Your task to perform on an android device: snooze an email in the gmail app Image 0: 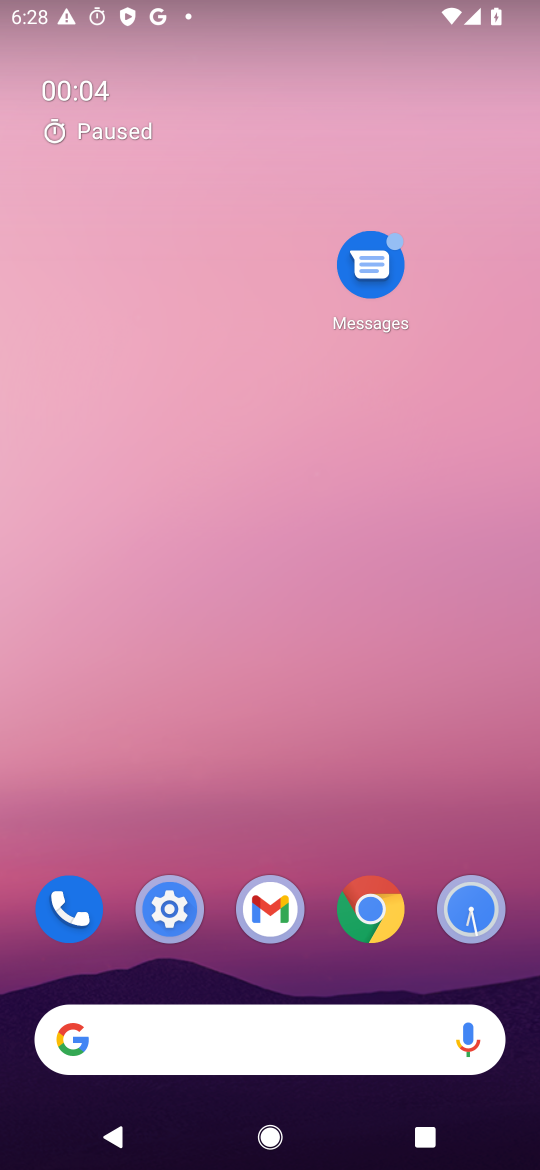
Step 0: click (271, 904)
Your task to perform on an android device: snooze an email in the gmail app Image 1: 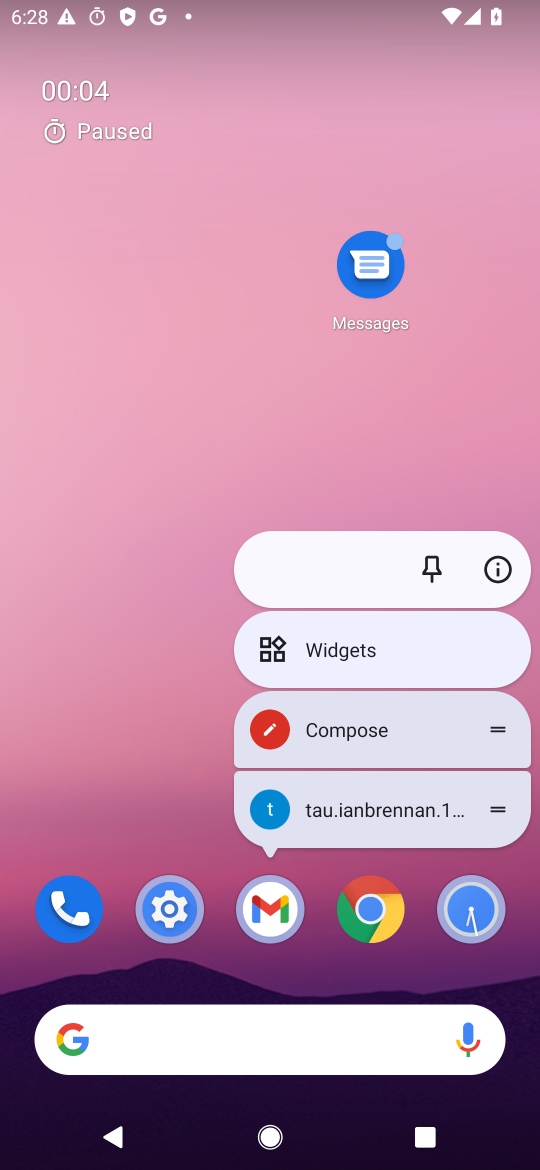
Step 1: click (271, 904)
Your task to perform on an android device: snooze an email in the gmail app Image 2: 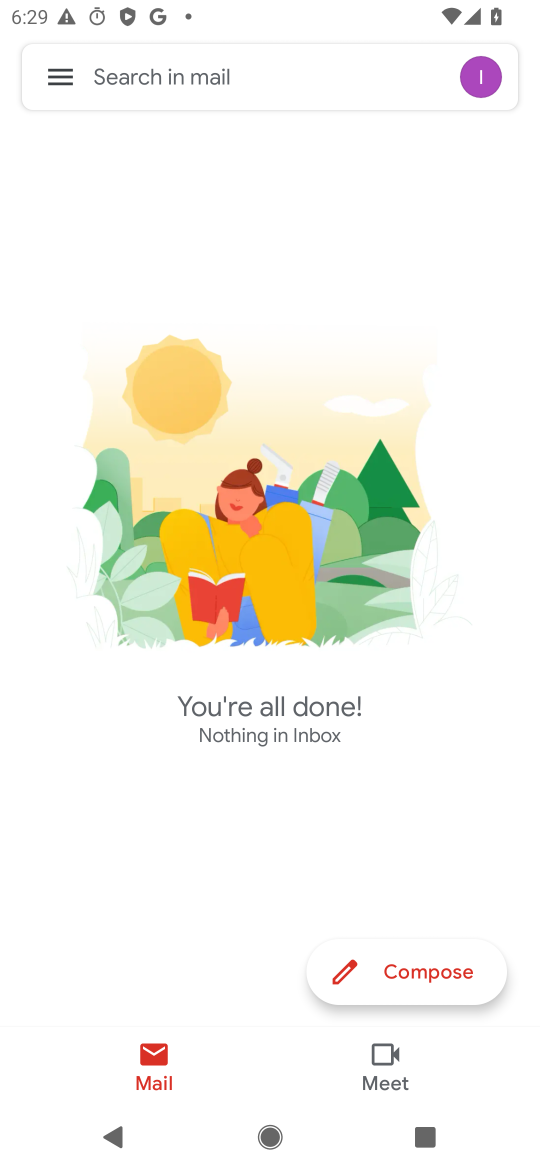
Step 2: task complete